Your task to perform on an android device: Open settings Image 0: 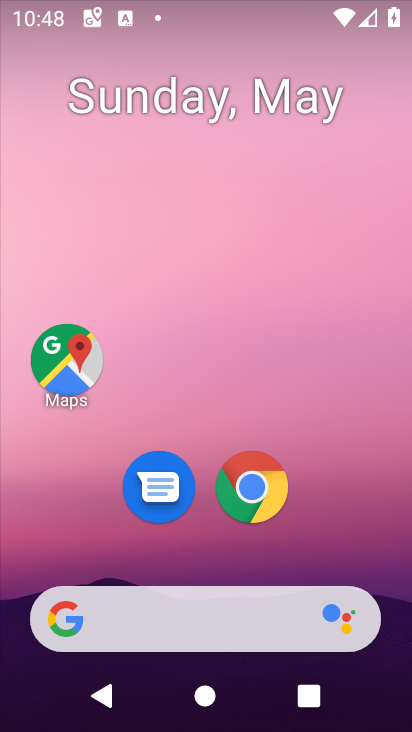
Step 0: drag from (226, 616) to (175, 113)
Your task to perform on an android device: Open settings Image 1: 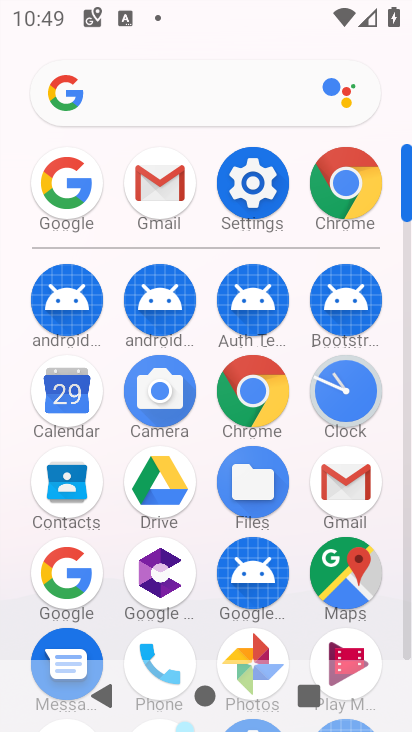
Step 1: drag from (293, 528) to (269, 272)
Your task to perform on an android device: Open settings Image 2: 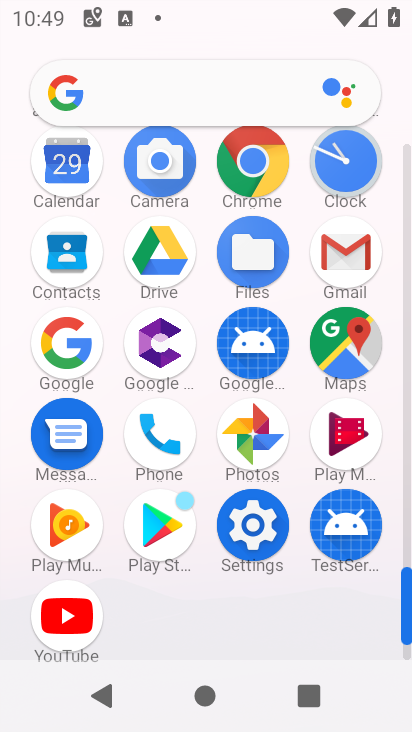
Step 2: click (257, 544)
Your task to perform on an android device: Open settings Image 3: 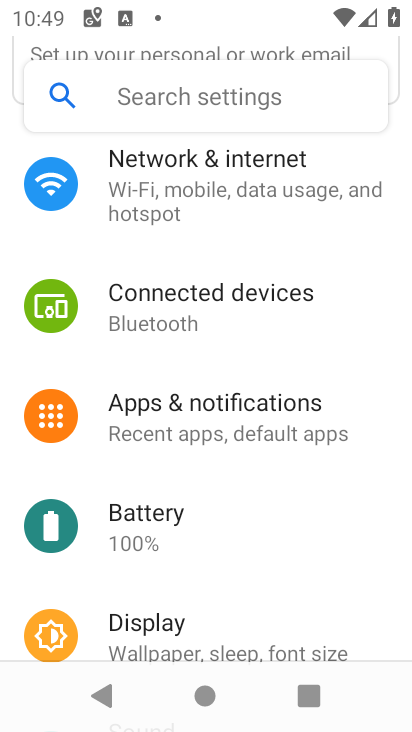
Step 3: task complete